Your task to perform on an android device: toggle wifi Image 0: 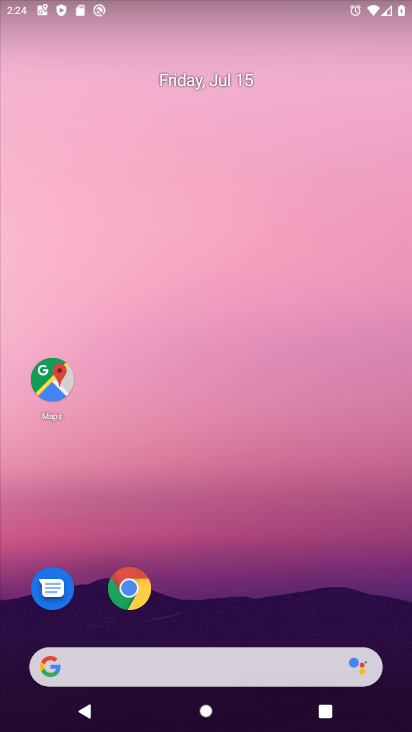
Step 0: drag from (200, 672) to (236, 62)
Your task to perform on an android device: toggle wifi Image 1: 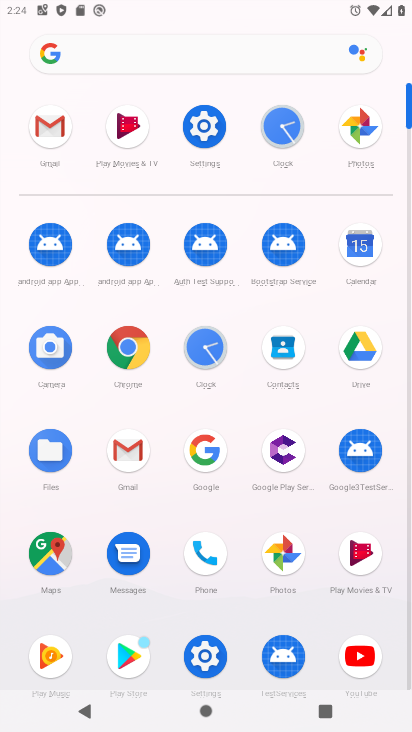
Step 1: click (205, 125)
Your task to perform on an android device: toggle wifi Image 2: 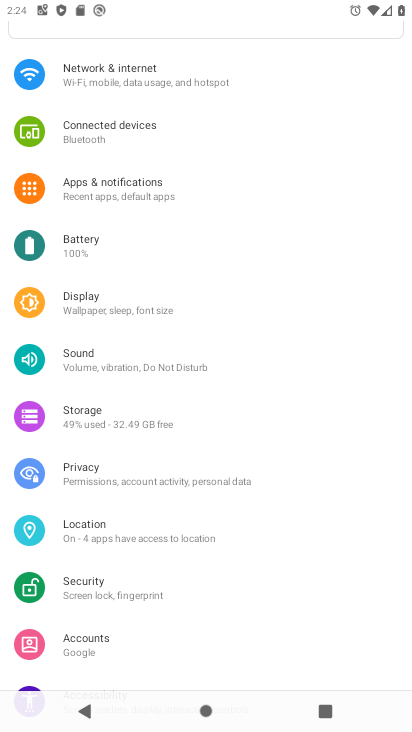
Step 2: click (126, 75)
Your task to perform on an android device: toggle wifi Image 3: 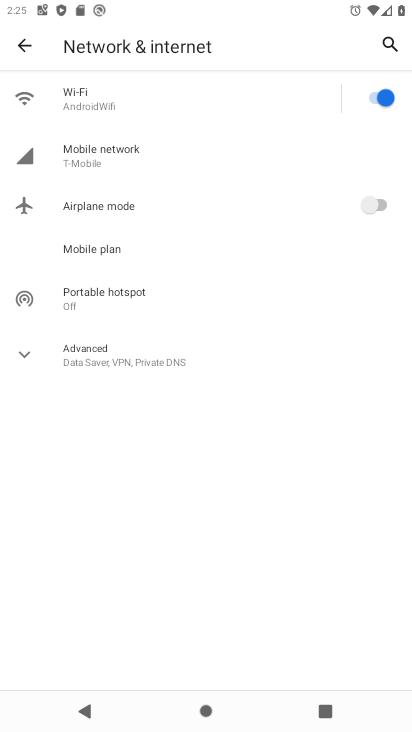
Step 3: click (384, 98)
Your task to perform on an android device: toggle wifi Image 4: 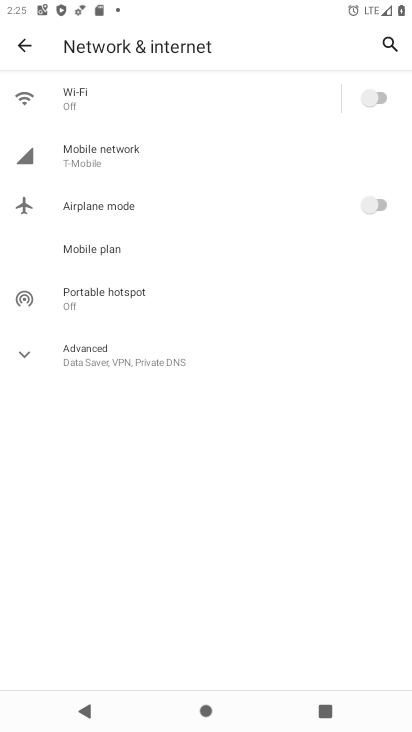
Step 4: task complete